Your task to perform on an android device: turn notification dots on Image 0: 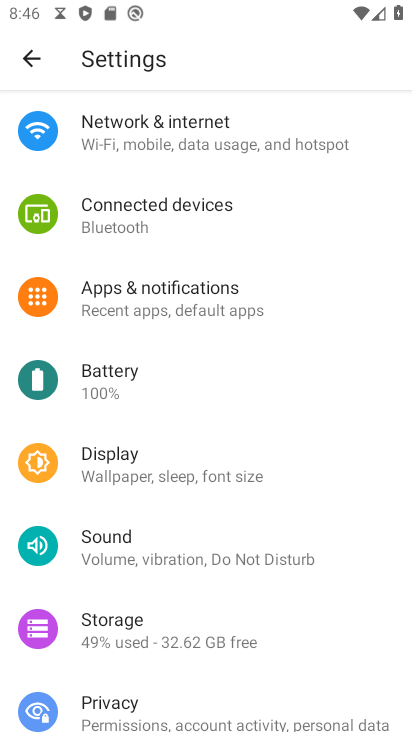
Step 0: click (206, 301)
Your task to perform on an android device: turn notification dots on Image 1: 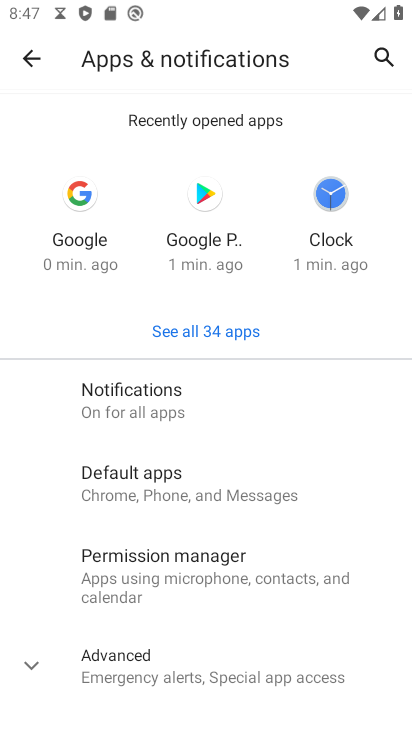
Step 1: click (211, 395)
Your task to perform on an android device: turn notification dots on Image 2: 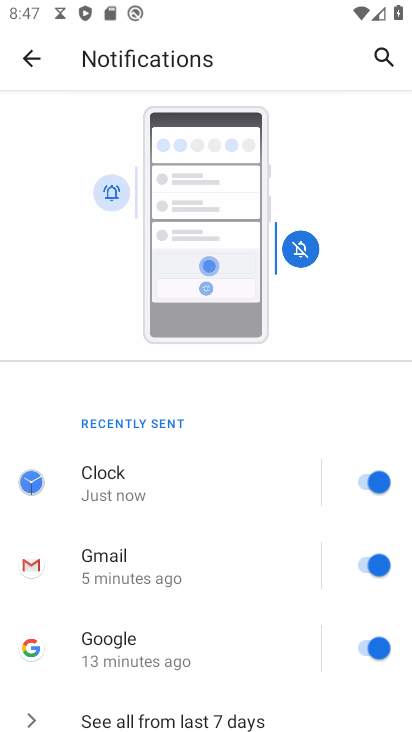
Step 2: drag from (200, 683) to (250, 209)
Your task to perform on an android device: turn notification dots on Image 3: 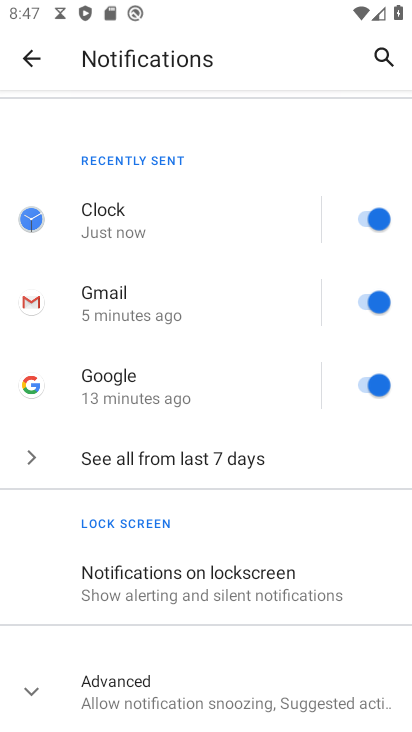
Step 3: click (149, 694)
Your task to perform on an android device: turn notification dots on Image 4: 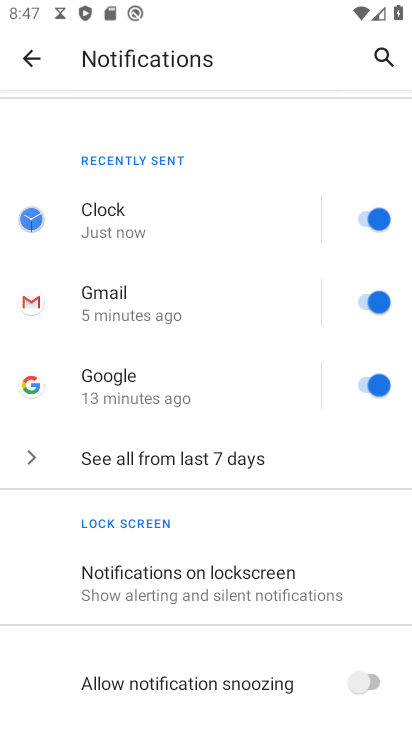
Step 4: drag from (212, 679) to (231, 266)
Your task to perform on an android device: turn notification dots on Image 5: 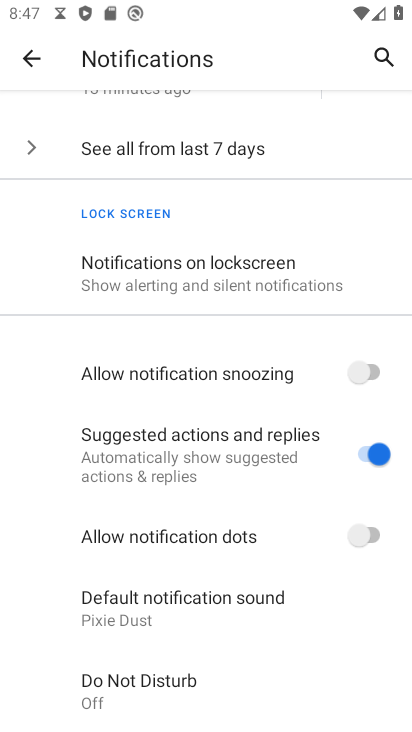
Step 5: click (370, 529)
Your task to perform on an android device: turn notification dots on Image 6: 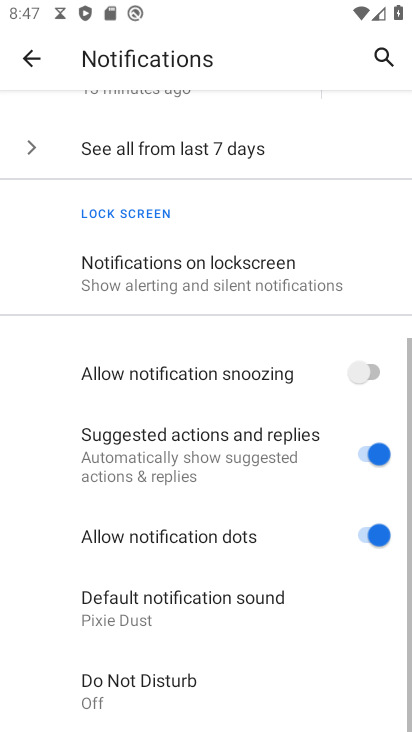
Step 6: task complete